Your task to perform on an android device: Open Reddit.com Image 0: 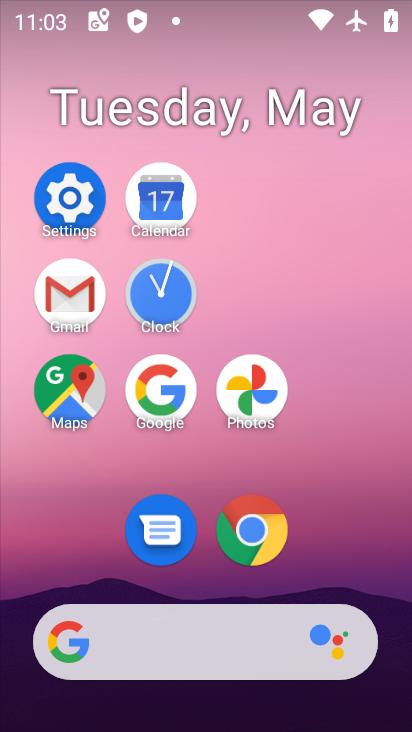
Step 0: click (275, 542)
Your task to perform on an android device: Open Reddit.com Image 1: 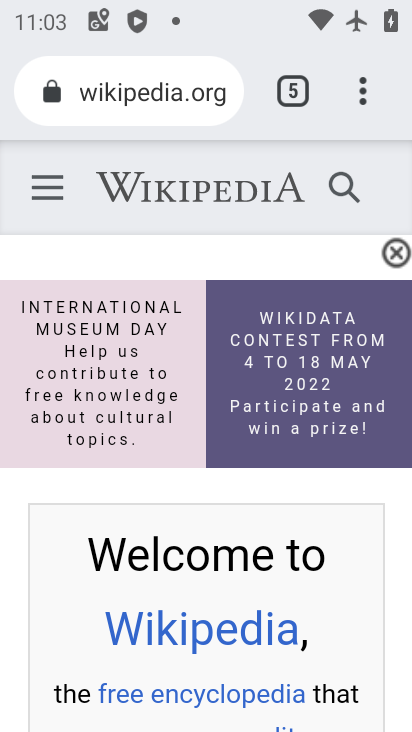
Step 1: click (289, 99)
Your task to perform on an android device: Open Reddit.com Image 2: 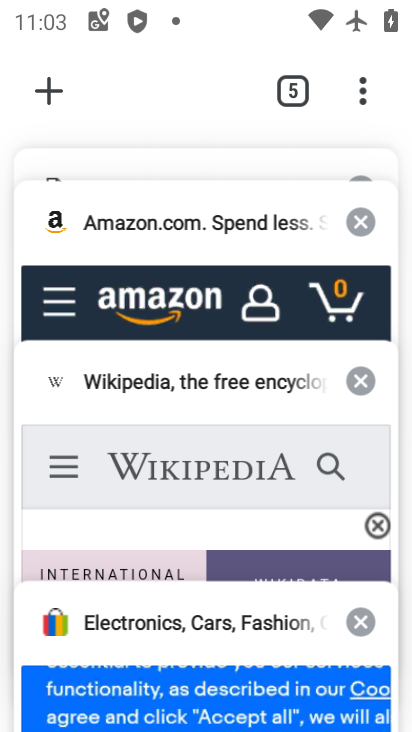
Step 2: drag from (245, 267) to (238, 628)
Your task to perform on an android device: Open Reddit.com Image 3: 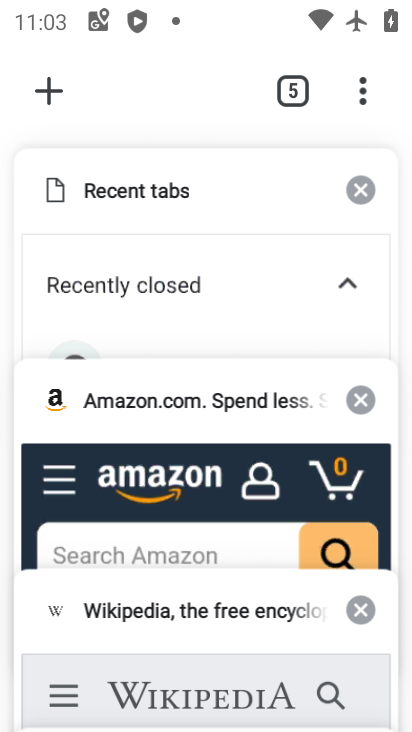
Step 3: drag from (211, 236) to (237, 573)
Your task to perform on an android device: Open Reddit.com Image 4: 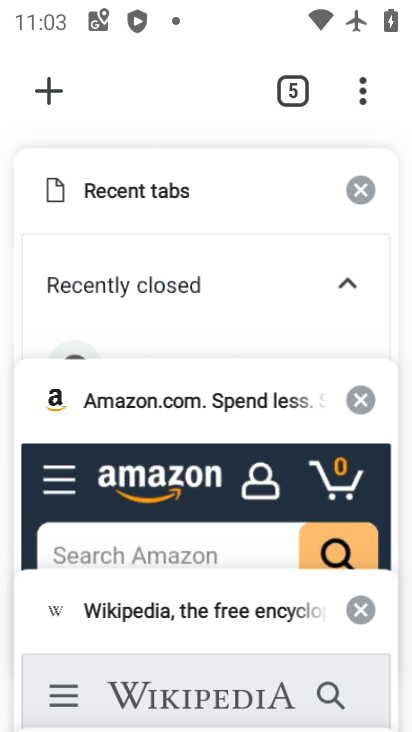
Step 4: click (53, 76)
Your task to perform on an android device: Open Reddit.com Image 5: 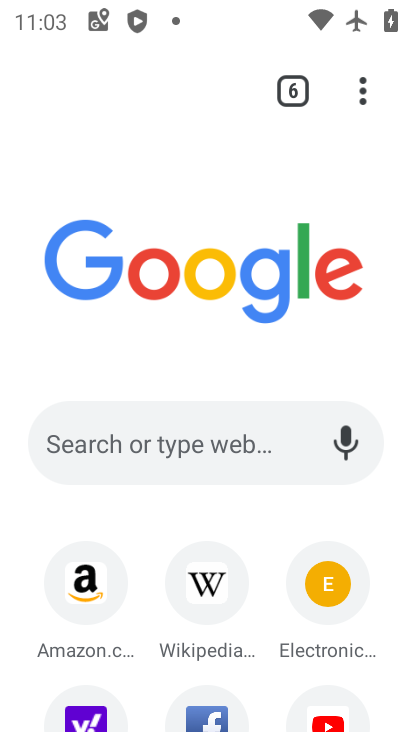
Step 5: click (256, 421)
Your task to perform on an android device: Open Reddit.com Image 6: 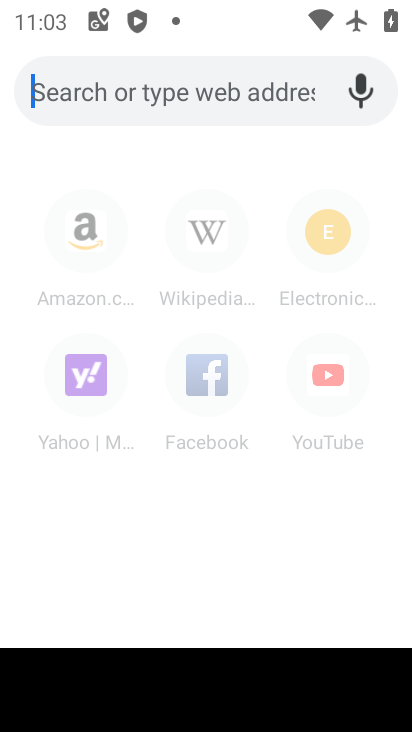
Step 6: type "reddit"
Your task to perform on an android device: Open Reddit.com Image 7: 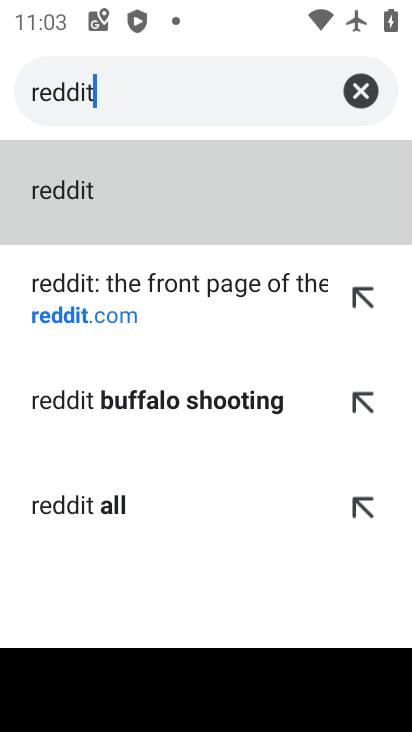
Step 7: click (139, 314)
Your task to perform on an android device: Open Reddit.com Image 8: 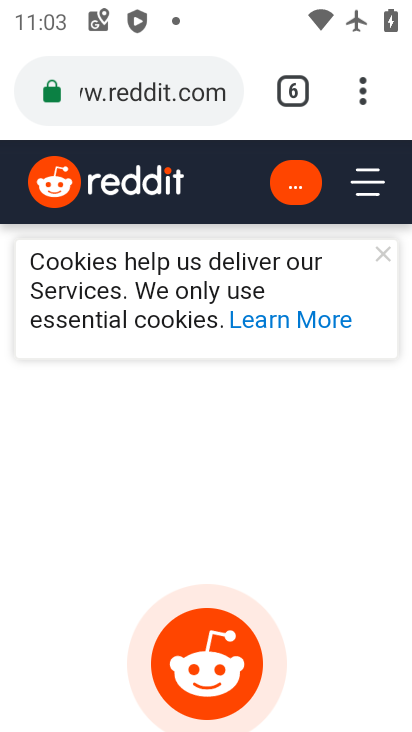
Step 8: task complete